Your task to perform on an android device: Open eBay Image 0: 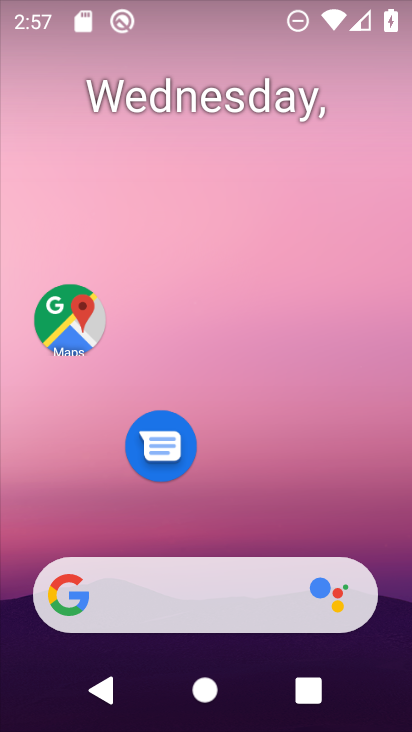
Step 0: drag from (216, 532) to (210, 6)
Your task to perform on an android device: Open eBay Image 1: 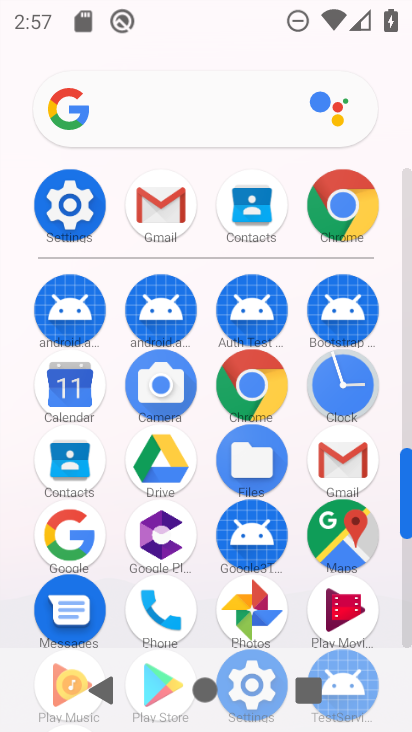
Step 1: click (325, 192)
Your task to perform on an android device: Open eBay Image 2: 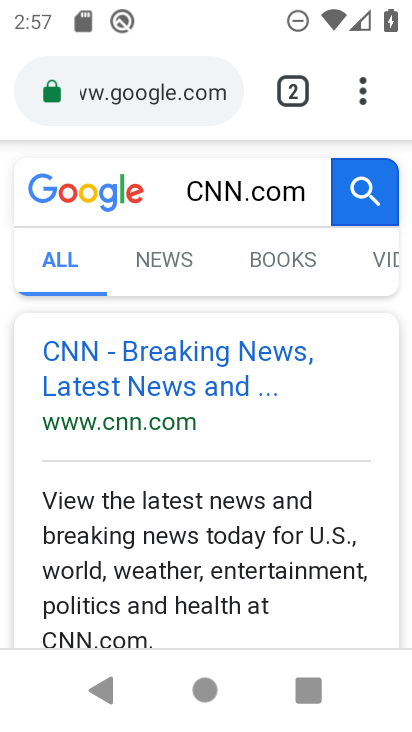
Step 2: click (162, 82)
Your task to perform on an android device: Open eBay Image 3: 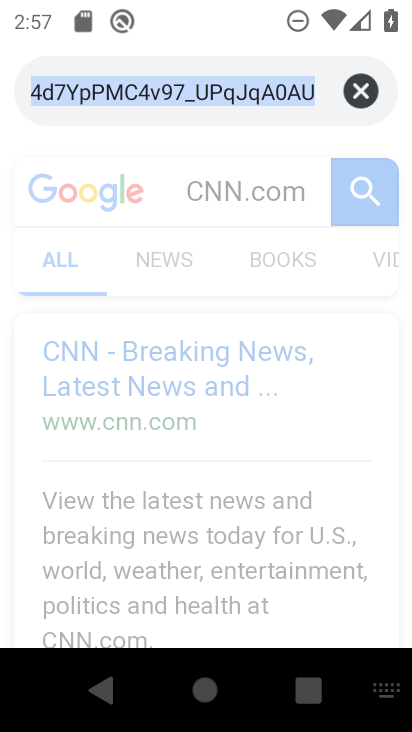
Step 3: type "ebay.com"
Your task to perform on an android device: Open eBay Image 4: 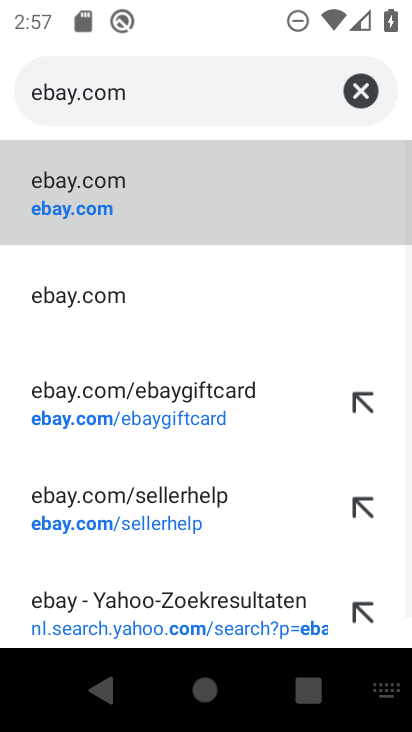
Step 4: click (151, 397)
Your task to perform on an android device: Open eBay Image 5: 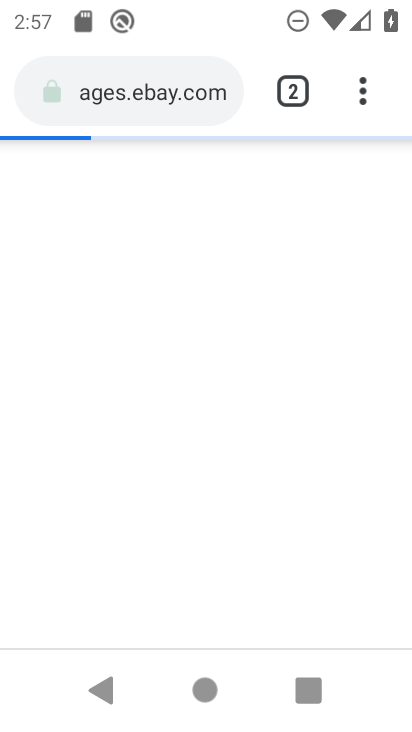
Step 5: task complete